Your task to perform on an android device: add a contact in the contacts app Image 0: 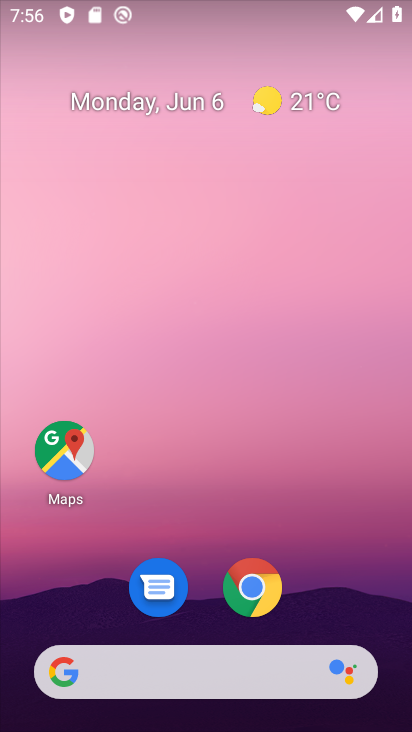
Step 0: drag from (97, 702) to (133, 79)
Your task to perform on an android device: add a contact in the contacts app Image 1: 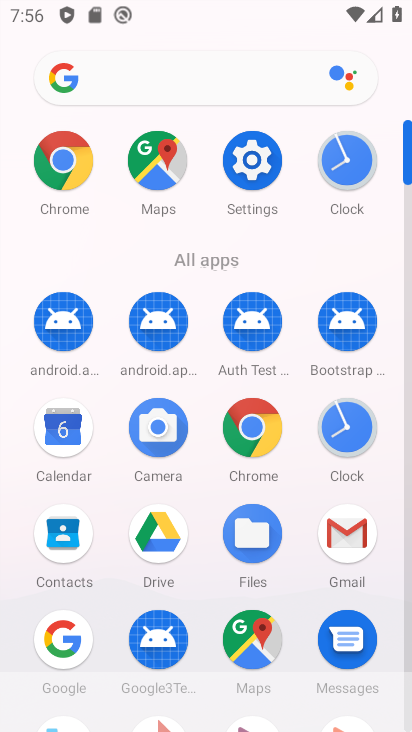
Step 1: click (71, 538)
Your task to perform on an android device: add a contact in the contacts app Image 2: 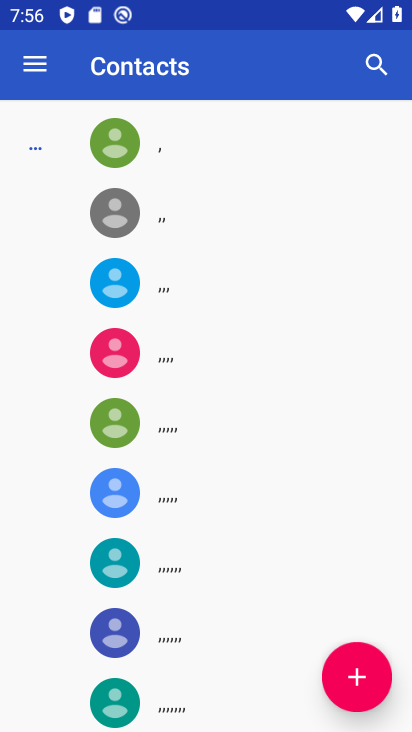
Step 2: click (369, 670)
Your task to perform on an android device: add a contact in the contacts app Image 3: 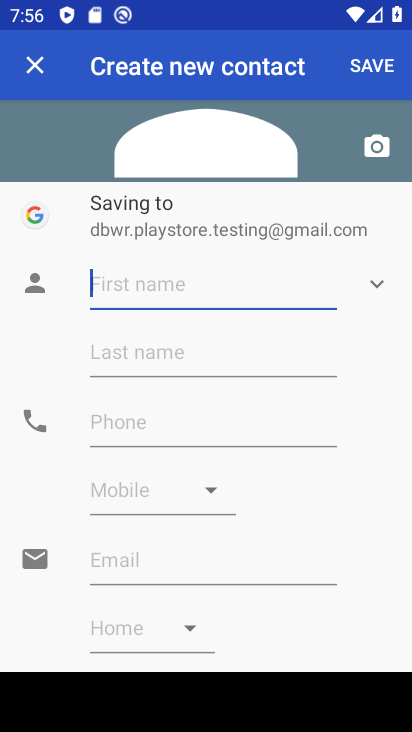
Step 3: type "vbhvhbhv"
Your task to perform on an android device: add a contact in the contacts app Image 4: 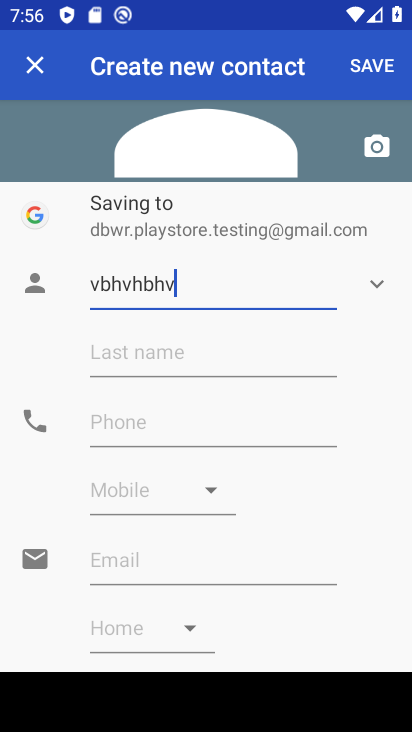
Step 4: click (142, 407)
Your task to perform on an android device: add a contact in the contacts app Image 5: 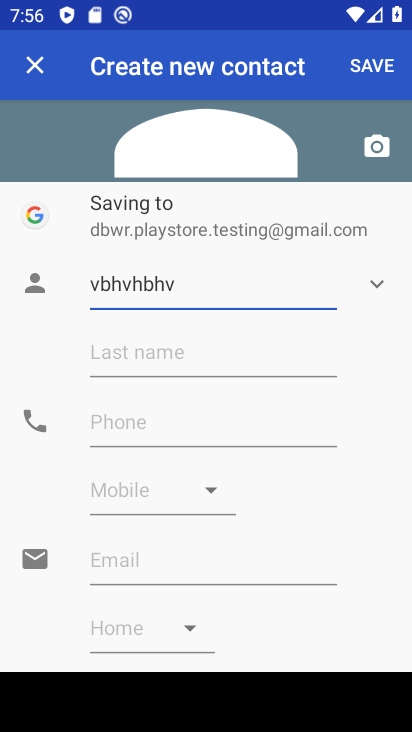
Step 5: click (155, 430)
Your task to perform on an android device: add a contact in the contacts app Image 6: 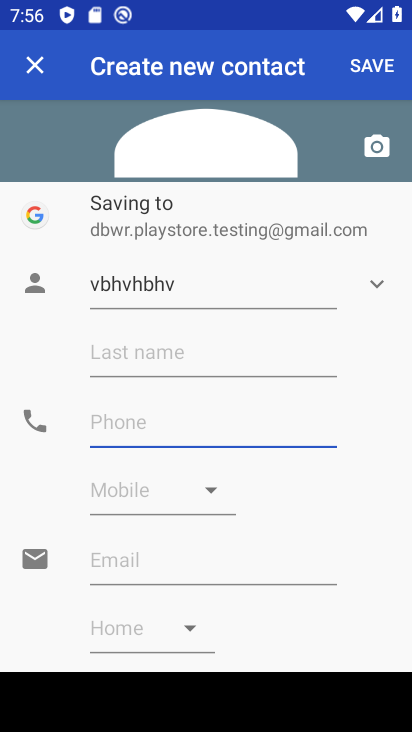
Step 6: click (160, 425)
Your task to perform on an android device: add a contact in the contacts app Image 7: 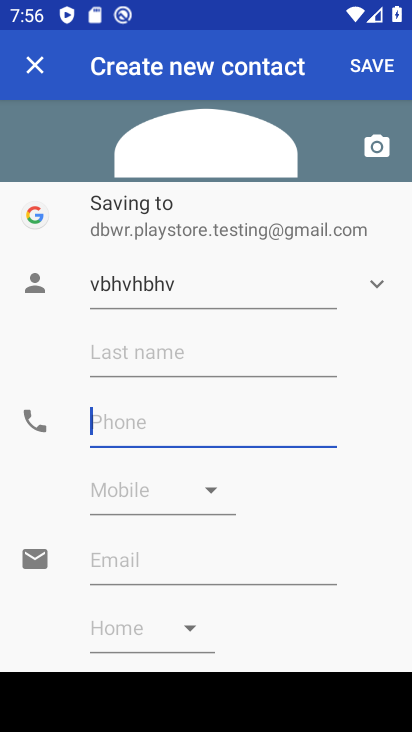
Step 7: type "877887"
Your task to perform on an android device: add a contact in the contacts app Image 8: 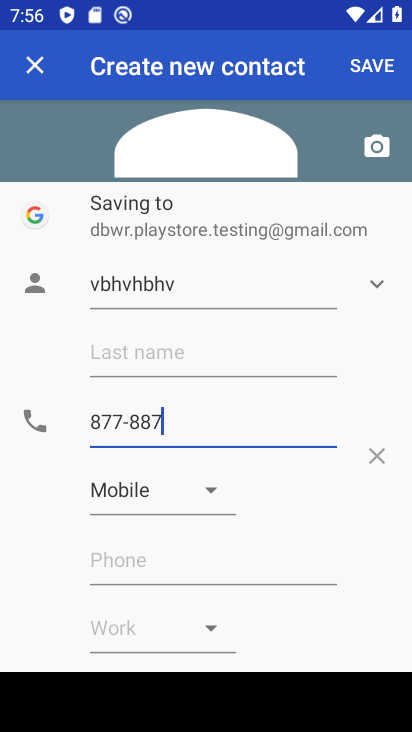
Step 8: click (376, 65)
Your task to perform on an android device: add a contact in the contacts app Image 9: 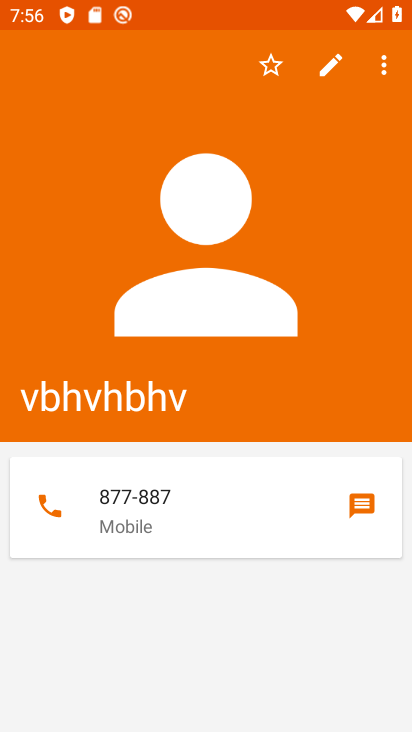
Step 9: task complete